Your task to perform on an android device: What's the weather? Image 0: 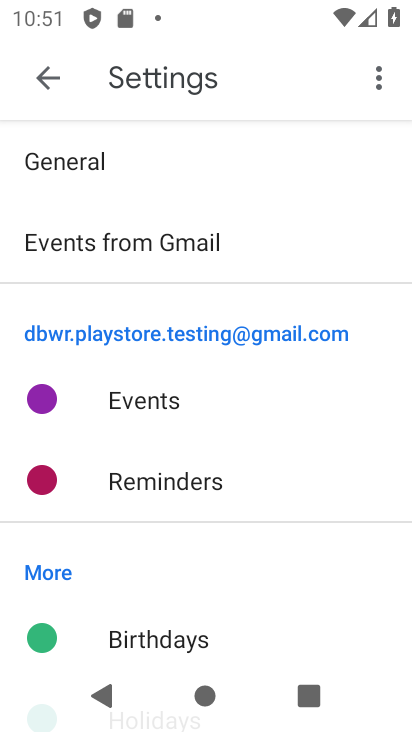
Step 0: press home button
Your task to perform on an android device: What's the weather? Image 1: 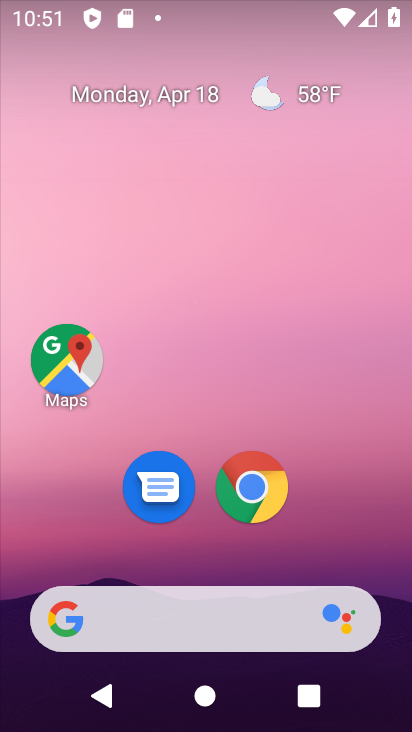
Step 1: click (320, 106)
Your task to perform on an android device: What's the weather? Image 2: 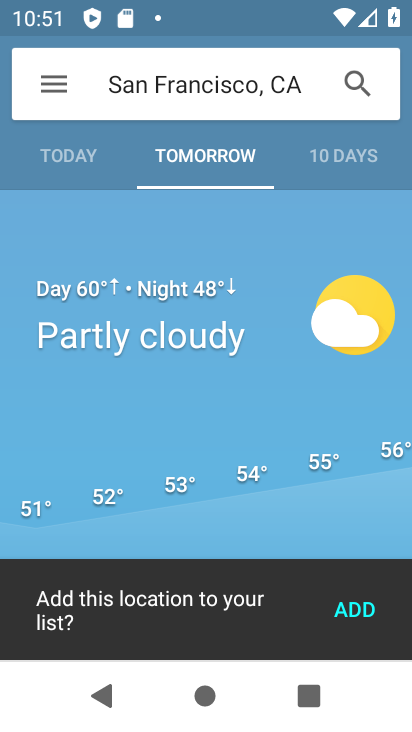
Step 2: task complete